Your task to perform on an android device: Show me popular games on the Play Store Image 0: 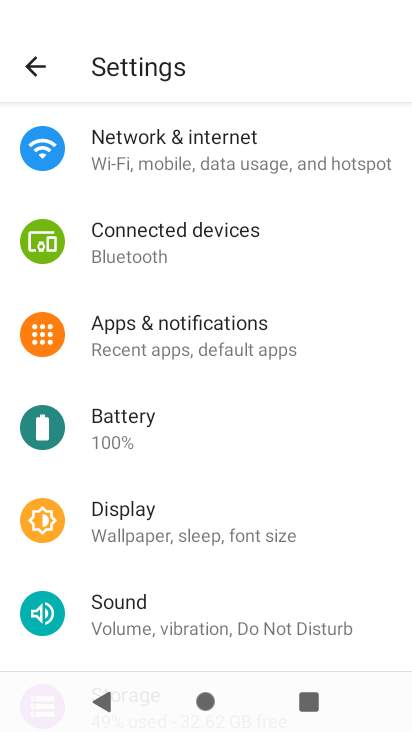
Step 0: press home button
Your task to perform on an android device: Show me popular games on the Play Store Image 1: 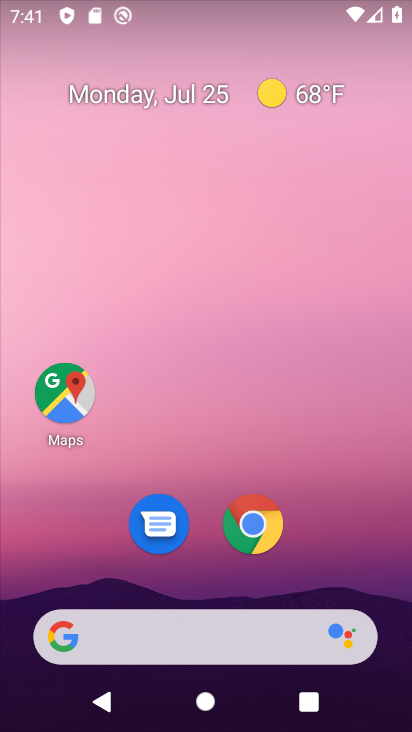
Step 1: drag from (356, 542) to (342, 59)
Your task to perform on an android device: Show me popular games on the Play Store Image 2: 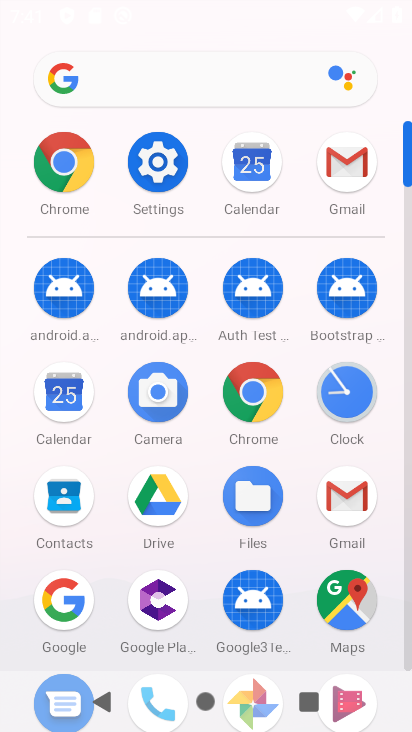
Step 2: drag from (206, 490) to (237, 106)
Your task to perform on an android device: Show me popular games on the Play Store Image 3: 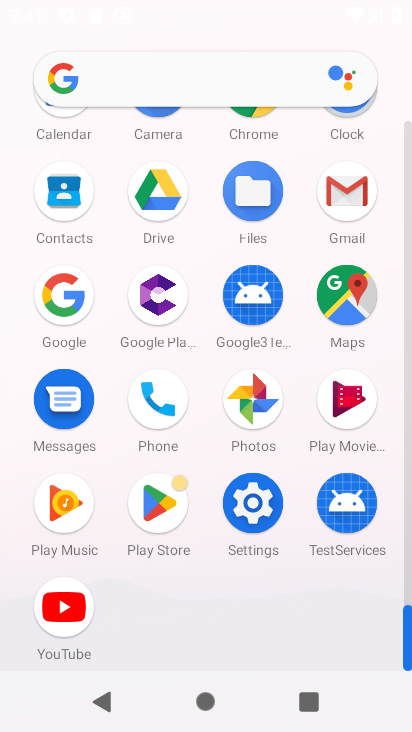
Step 3: click (156, 500)
Your task to perform on an android device: Show me popular games on the Play Store Image 4: 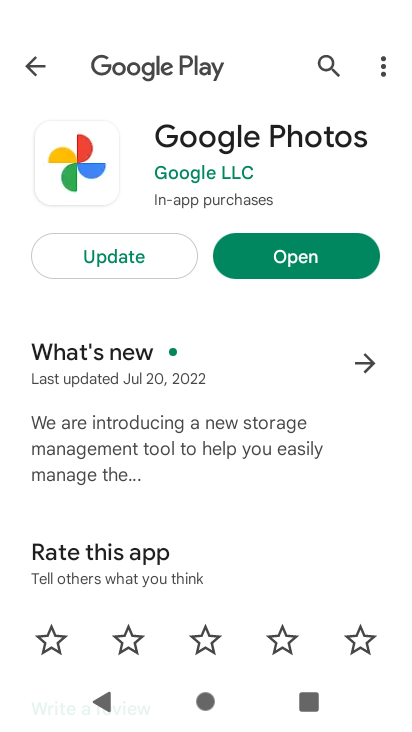
Step 4: click (28, 64)
Your task to perform on an android device: Show me popular games on the Play Store Image 5: 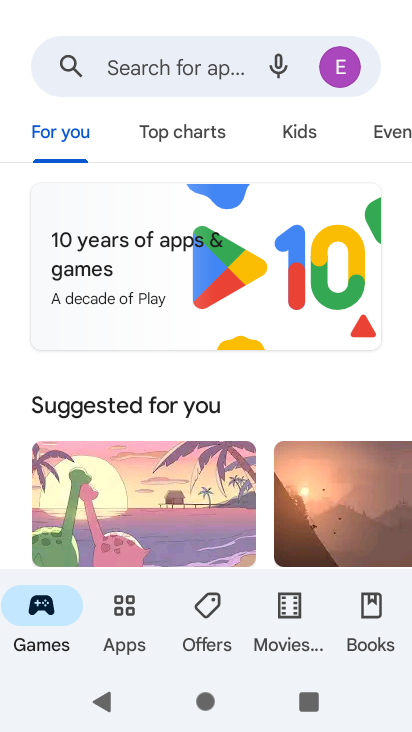
Step 5: drag from (254, 385) to (286, 77)
Your task to perform on an android device: Show me popular games on the Play Store Image 6: 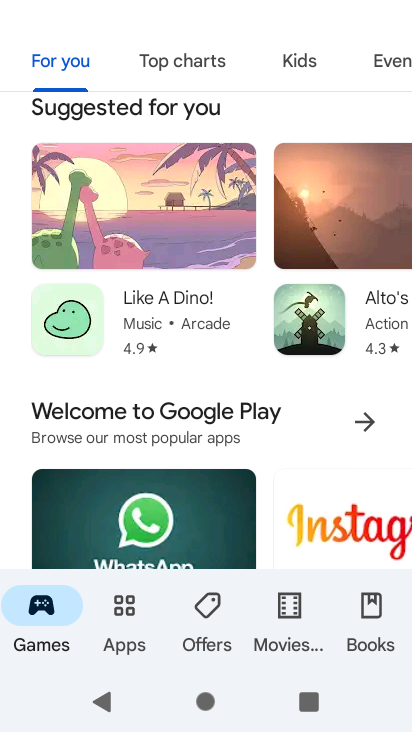
Step 6: drag from (216, 355) to (237, 73)
Your task to perform on an android device: Show me popular games on the Play Store Image 7: 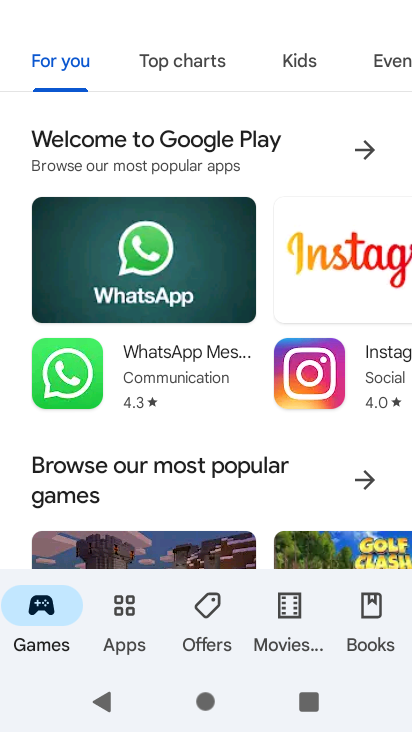
Step 7: click (364, 479)
Your task to perform on an android device: Show me popular games on the Play Store Image 8: 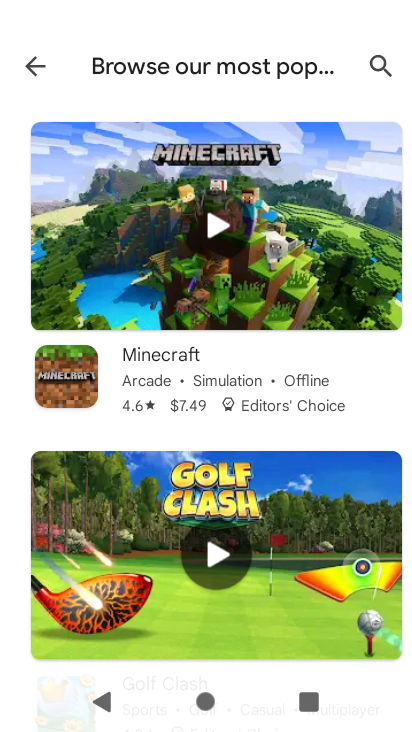
Step 8: task complete